Your task to perform on an android device: Open privacy settings Image 0: 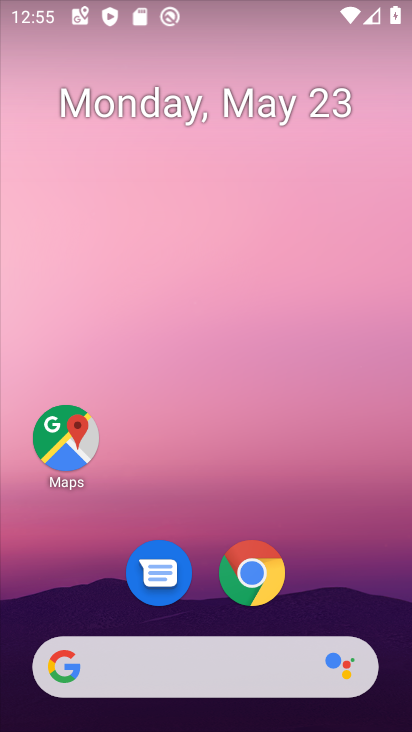
Step 0: drag from (302, 639) to (268, 116)
Your task to perform on an android device: Open privacy settings Image 1: 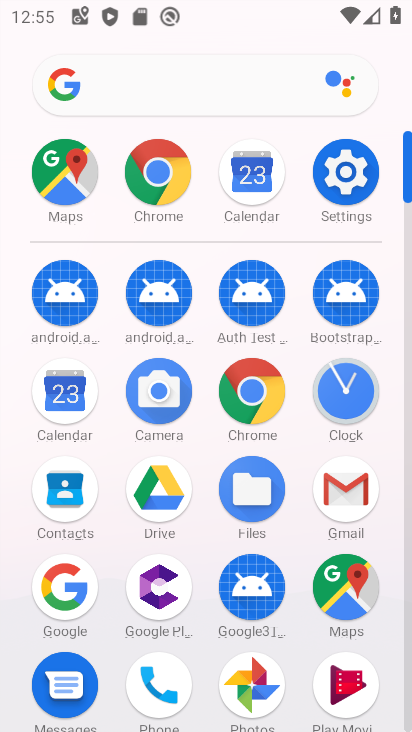
Step 1: click (342, 186)
Your task to perform on an android device: Open privacy settings Image 2: 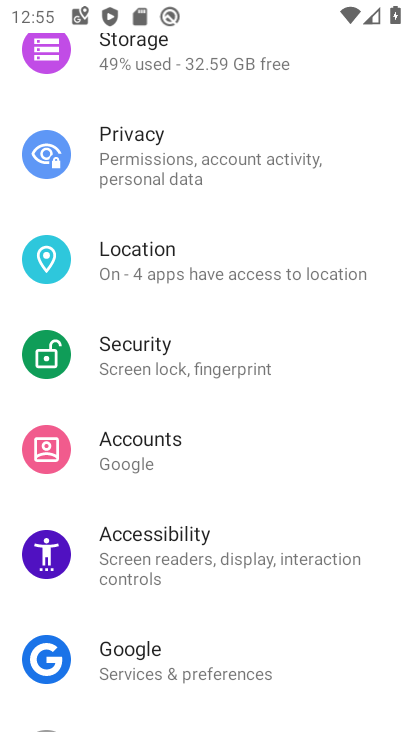
Step 2: click (248, 174)
Your task to perform on an android device: Open privacy settings Image 3: 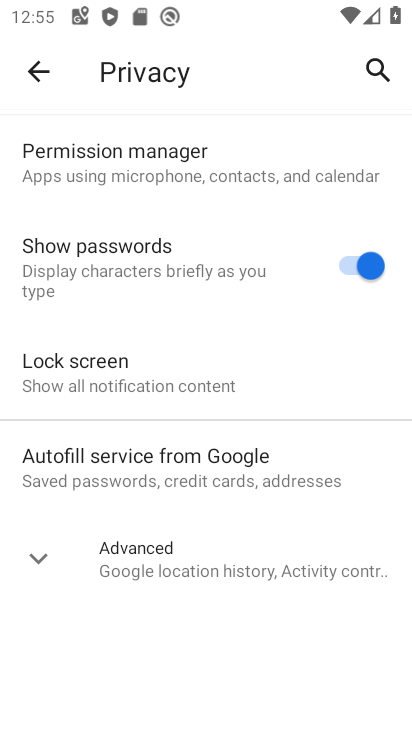
Step 3: task complete